Your task to perform on an android device: Open the calendar app, open the side menu, and click the "Day" option Image 0: 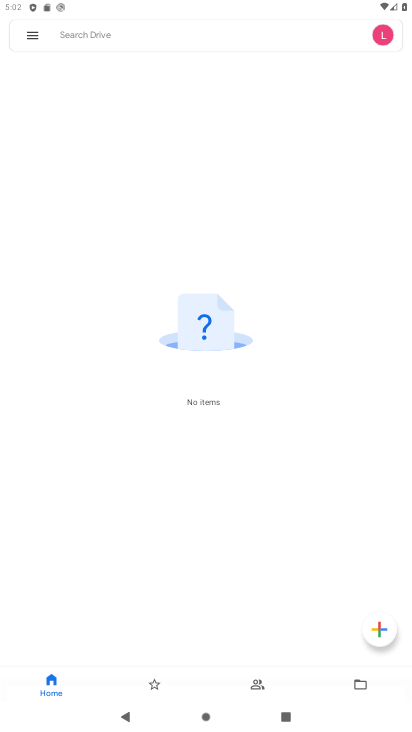
Step 0: press home button
Your task to perform on an android device: Open the calendar app, open the side menu, and click the "Day" option Image 1: 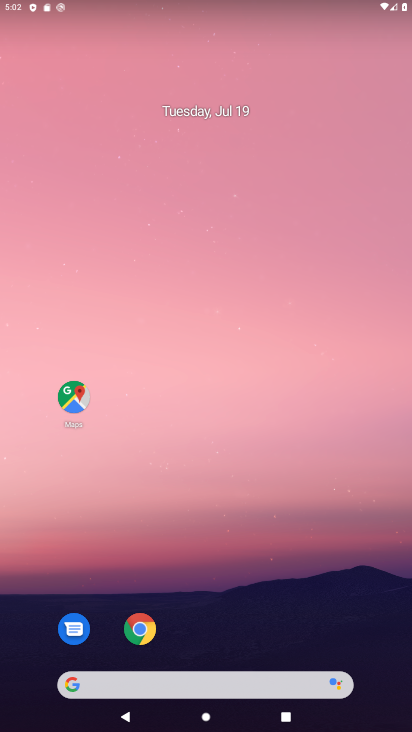
Step 1: drag from (237, 642) to (195, 1)
Your task to perform on an android device: Open the calendar app, open the side menu, and click the "Day" option Image 2: 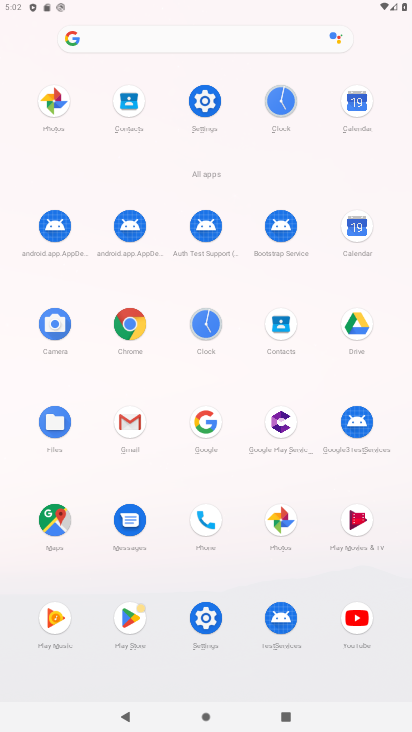
Step 2: click (353, 227)
Your task to perform on an android device: Open the calendar app, open the side menu, and click the "Day" option Image 3: 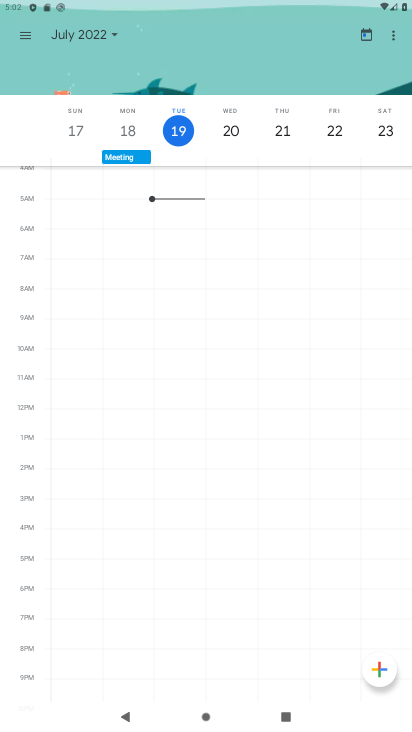
Step 3: click (22, 31)
Your task to perform on an android device: Open the calendar app, open the side menu, and click the "Day" option Image 4: 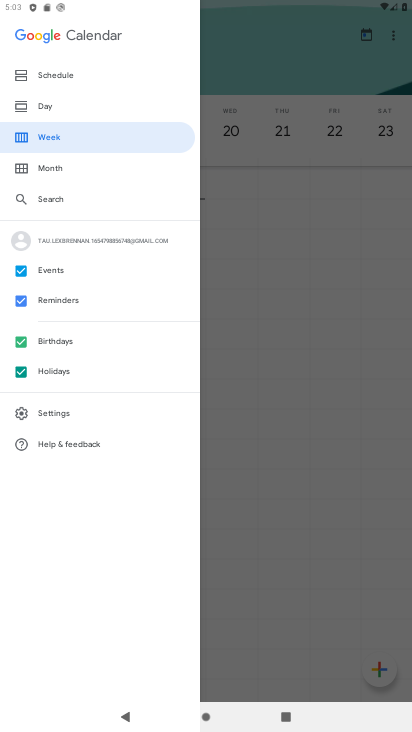
Step 4: click (33, 107)
Your task to perform on an android device: Open the calendar app, open the side menu, and click the "Day" option Image 5: 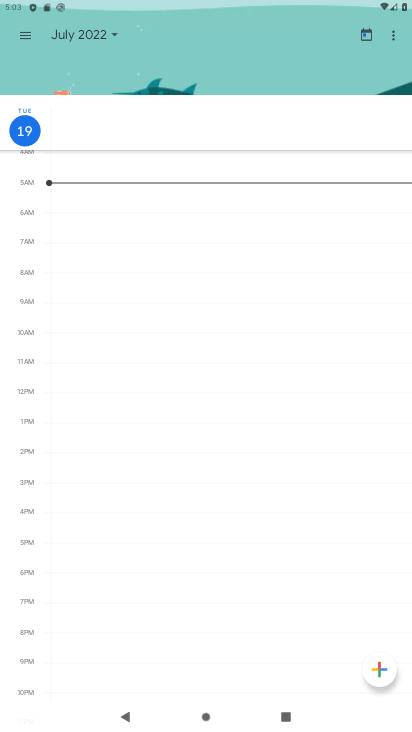
Step 5: task complete